Your task to perform on an android device: turn on priority inbox in the gmail app Image 0: 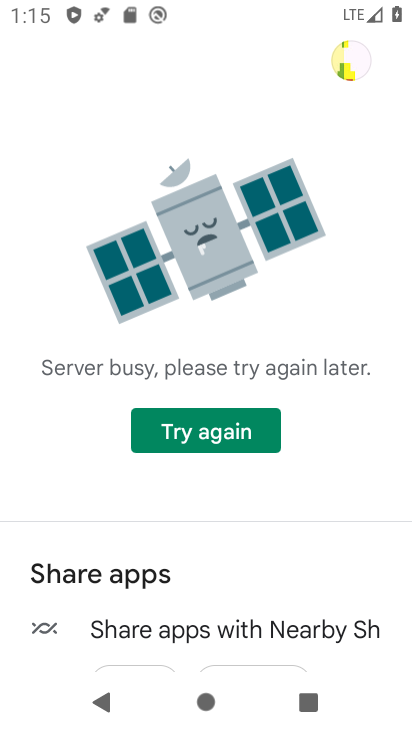
Step 0: press home button
Your task to perform on an android device: turn on priority inbox in the gmail app Image 1: 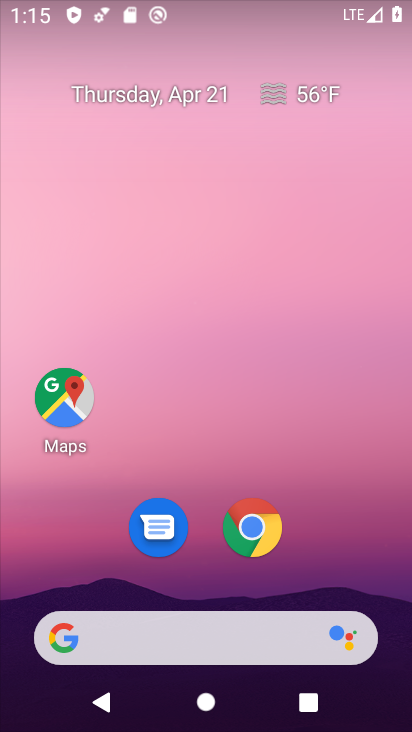
Step 1: drag from (195, 588) to (185, 290)
Your task to perform on an android device: turn on priority inbox in the gmail app Image 2: 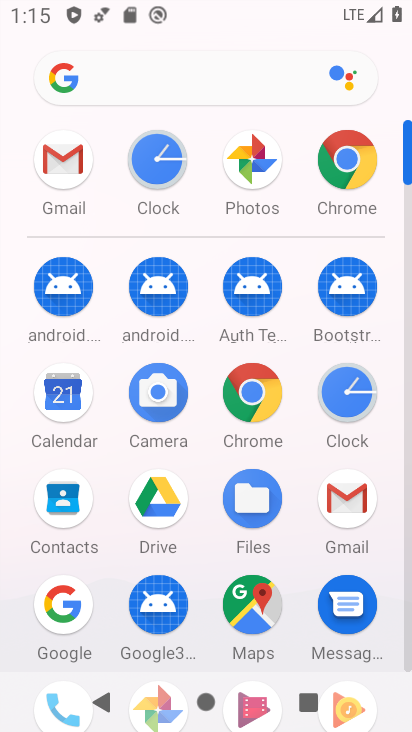
Step 2: click (55, 174)
Your task to perform on an android device: turn on priority inbox in the gmail app Image 3: 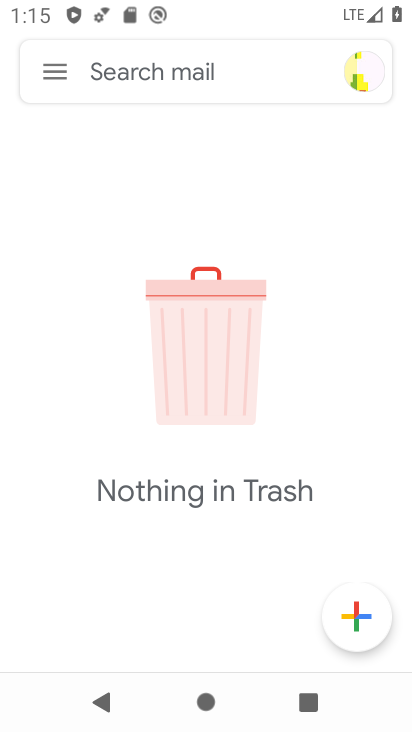
Step 3: click (59, 69)
Your task to perform on an android device: turn on priority inbox in the gmail app Image 4: 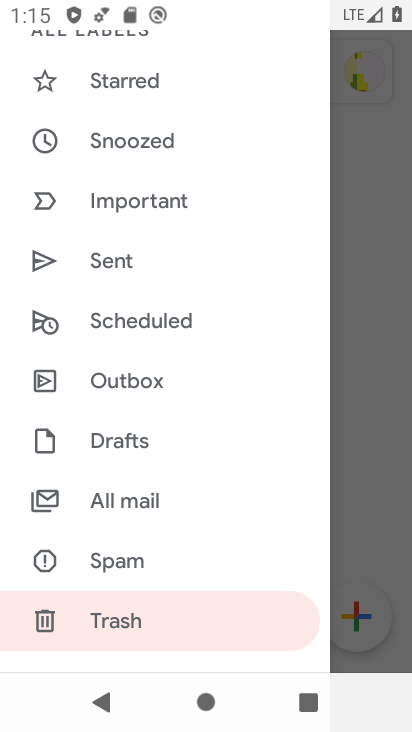
Step 4: drag from (133, 195) to (162, 486)
Your task to perform on an android device: turn on priority inbox in the gmail app Image 5: 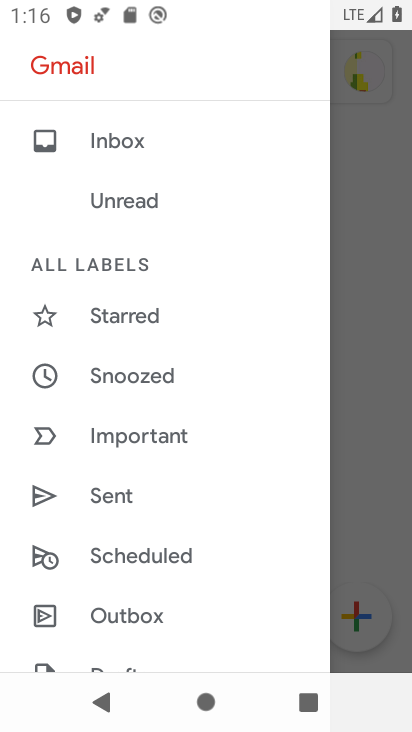
Step 5: drag from (161, 481) to (173, 30)
Your task to perform on an android device: turn on priority inbox in the gmail app Image 6: 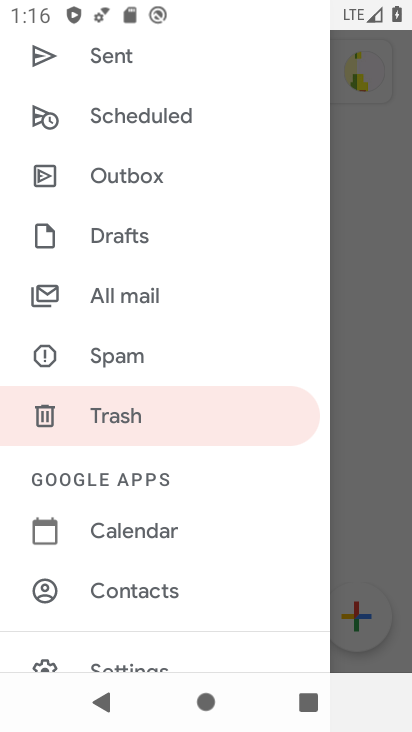
Step 6: click (141, 664)
Your task to perform on an android device: turn on priority inbox in the gmail app Image 7: 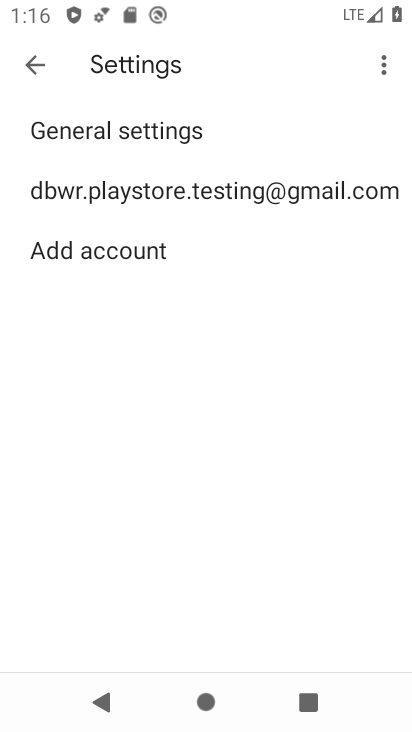
Step 7: click (217, 184)
Your task to perform on an android device: turn on priority inbox in the gmail app Image 8: 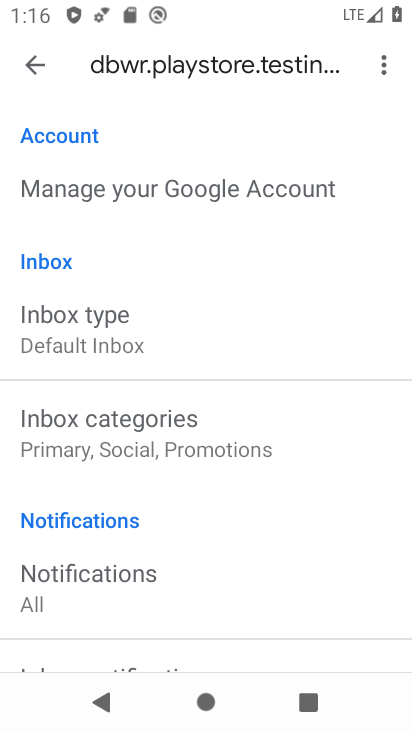
Step 8: click (90, 339)
Your task to perform on an android device: turn on priority inbox in the gmail app Image 9: 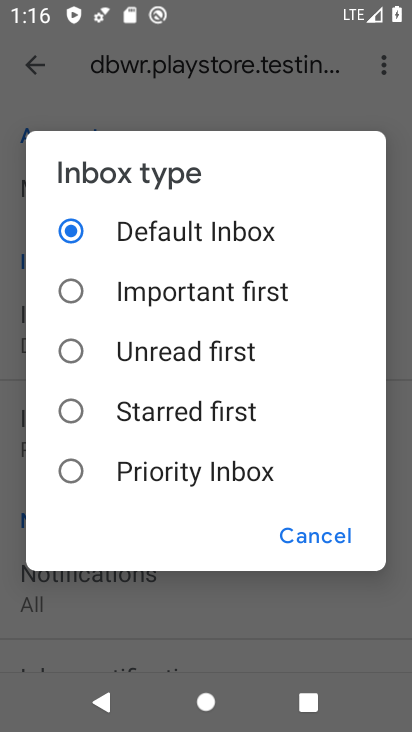
Step 9: click (65, 476)
Your task to perform on an android device: turn on priority inbox in the gmail app Image 10: 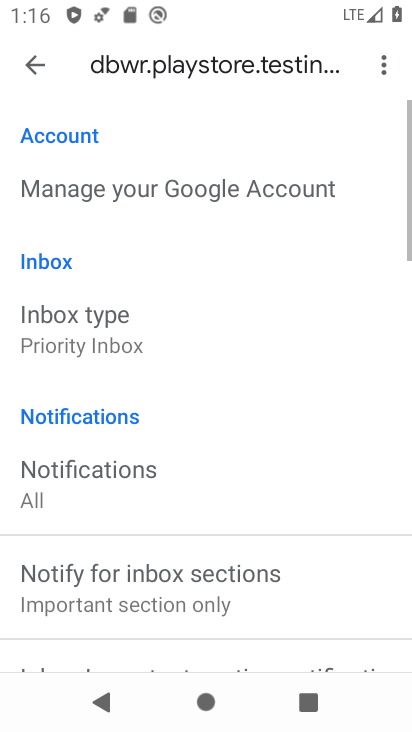
Step 10: task complete